Your task to perform on an android device: Do I have any events today? Image 0: 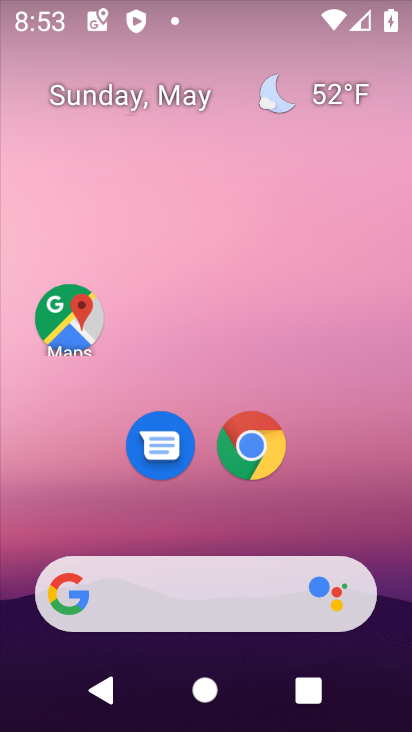
Step 0: drag from (338, 508) to (274, 79)
Your task to perform on an android device: Do I have any events today? Image 1: 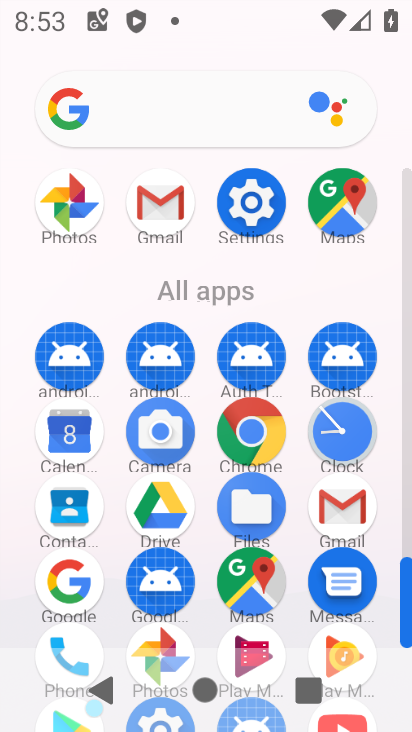
Step 1: click (72, 428)
Your task to perform on an android device: Do I have any events today? Image 2: 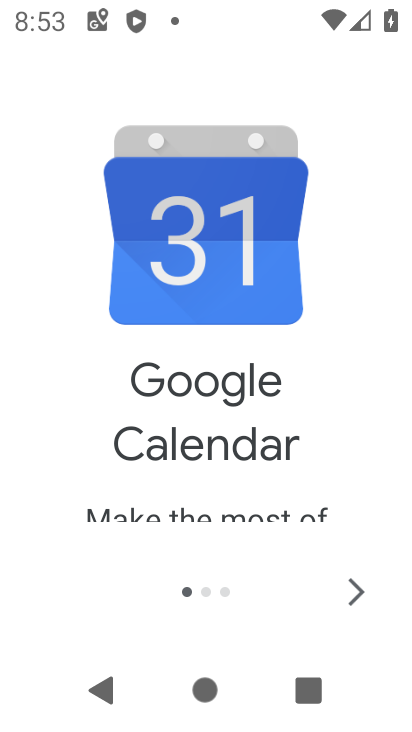
Step 2: click (348, 594)
Your task to perform on an android device: Do I have any events today? Image 3: 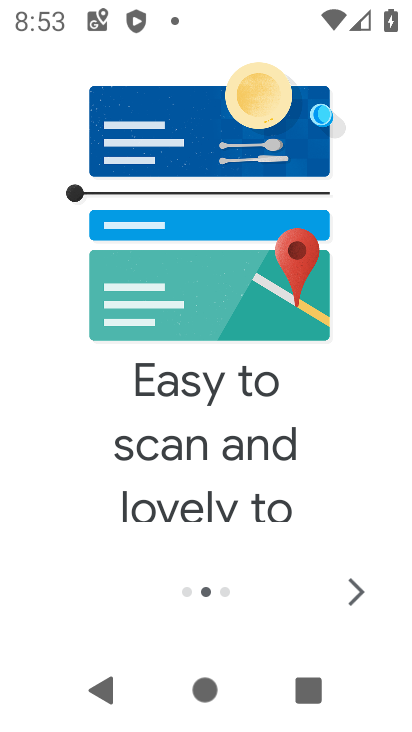
Step 3: click (355, 591)
Your task to perform on an android device: Do I have any events today? Image 4: 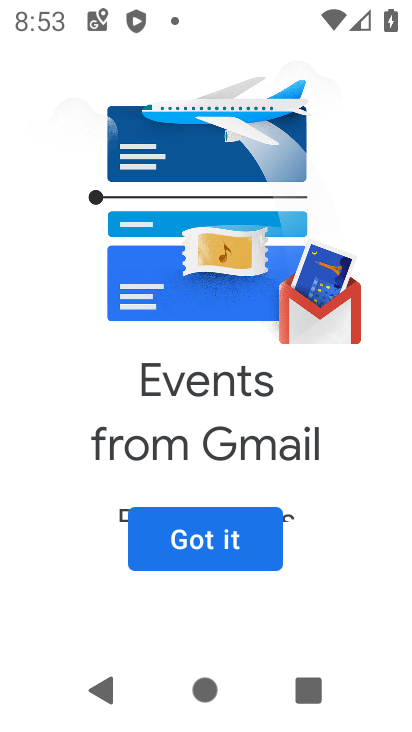
Step 4: click (226, 539)
Your task to perform on an android device: Do I have any events today? Image 5: 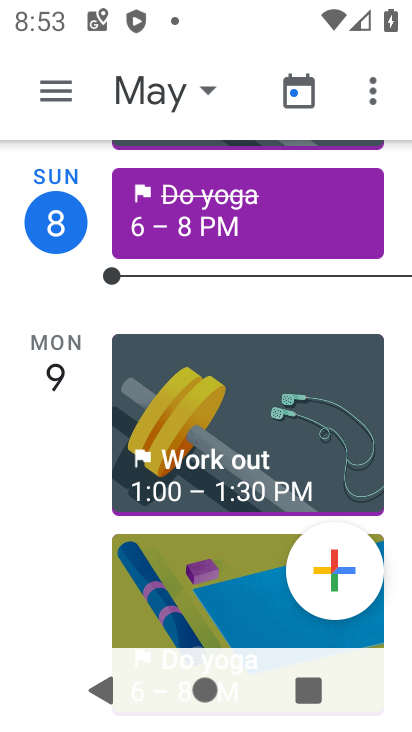
Step 5: click (59, 90)
Your task to perform on an android device: Do I have any events today? Image 6: 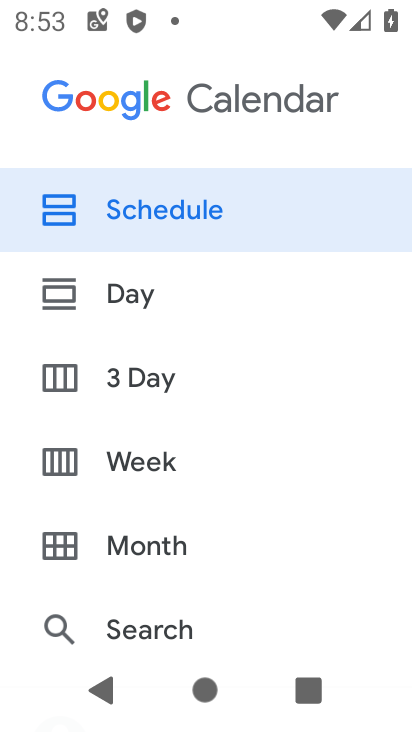
Step 6: click (125, 295)
Your task to perform on an android device: Do I have any events today? Image 7: 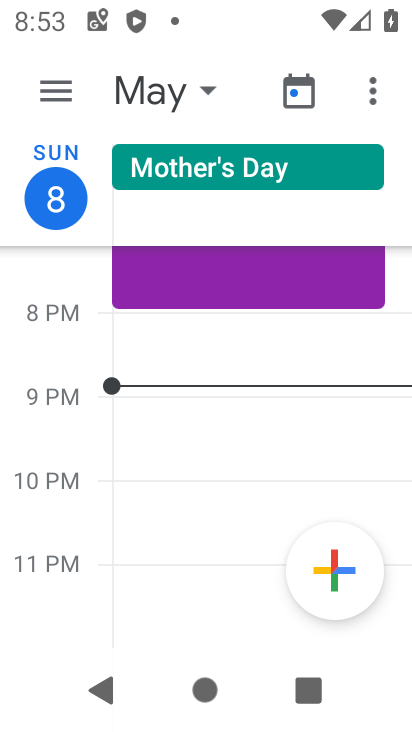
Step 7: task complete